Your task to perform on an android device: check out phone information Image 0: 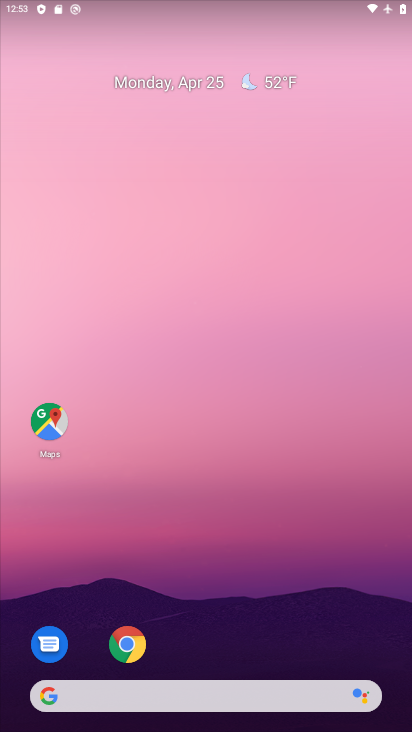
Step 0: drag from (221, 657) to (212, 243)
Your task to perform on an android device: check out phone information Image 1: 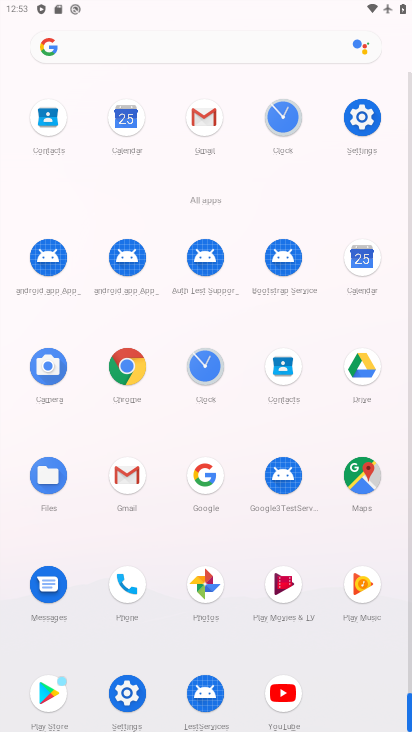
Step 1: click (360, 142)
Your task to perform on an android device: check out phone information Image 2: 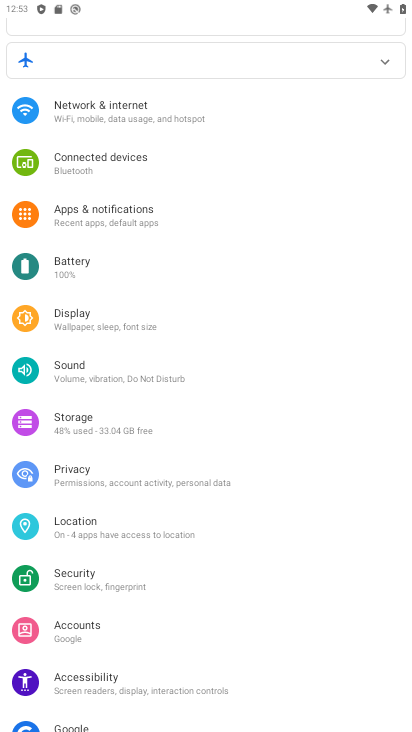
Step 2: drag from (146, 605) to (183, 131)
Your task to perform on an android device: check out phone information Image 3: 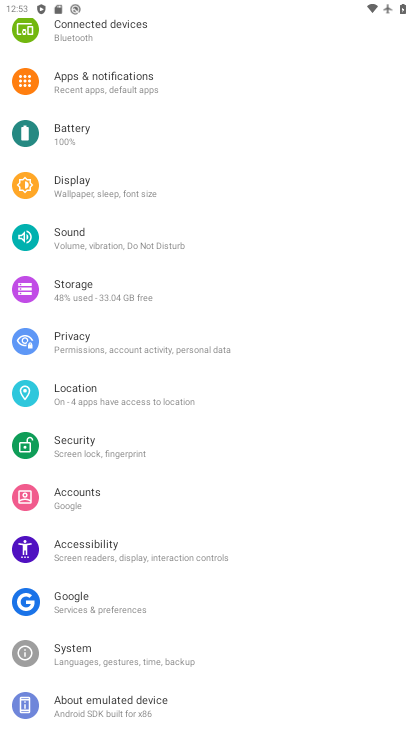
Step 3: drag from (212, 648) to (294, 277)
Your task to perform on an android device: check out phone information Image 4: 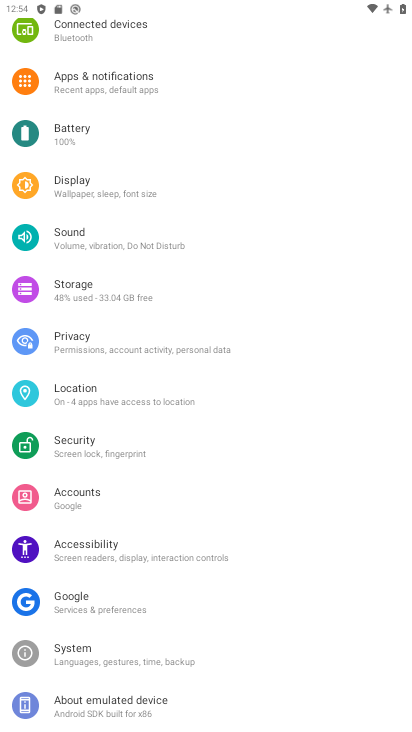
Step 4: click (159, 698)
Your task to perform on an android device: check out phone information Image 5: 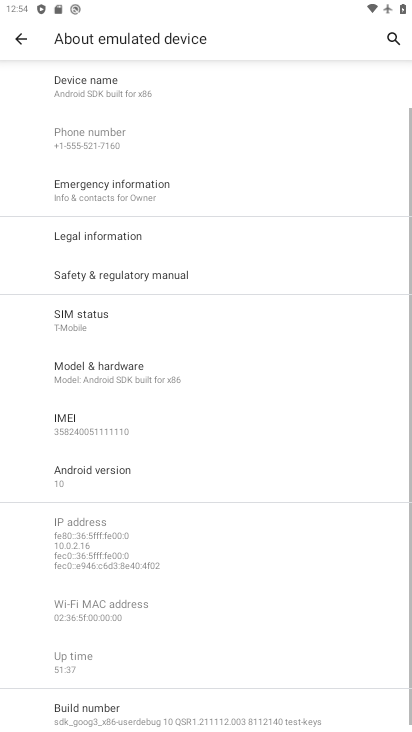
Step 5: task complete